Your task to perform on an android device: What is the recent news? Image 0: 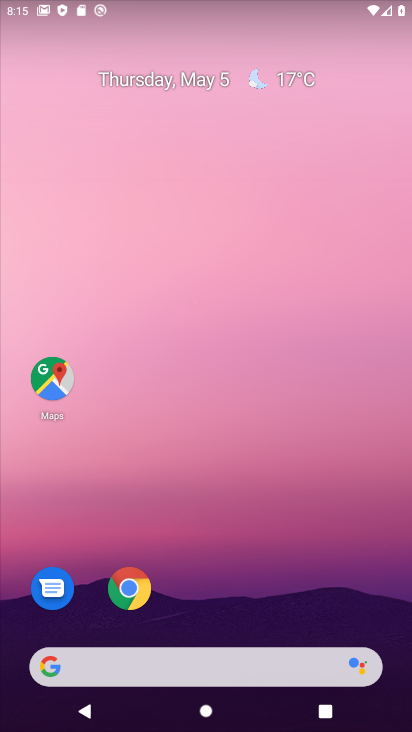
Step 0: drag from (271, 605) to (305, 291)
Your task to perform on an android device: What is the recent news? Image 1: 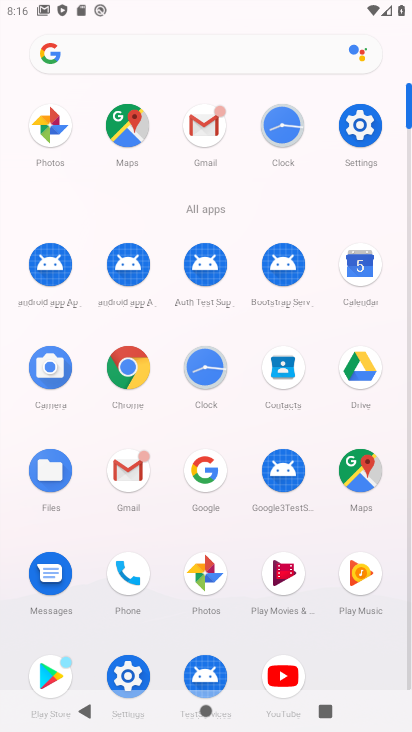
Step 1: click (135, 373)
Your task to perform on an android device: What is the recent news? Image 2: 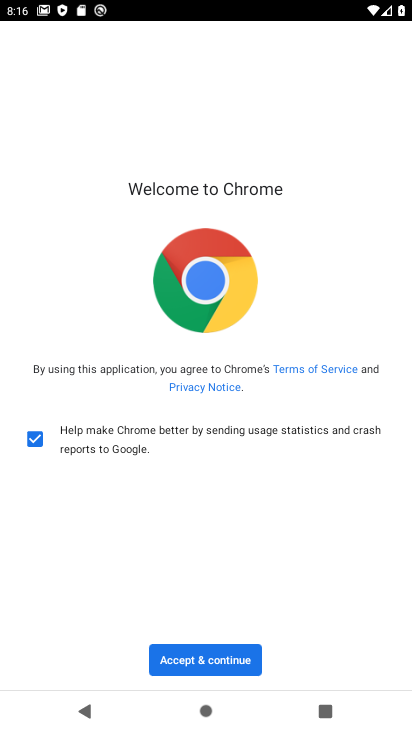
Step 2: click (190, 658)
Your task to perform on an android device: What is the recent news? Image 3: 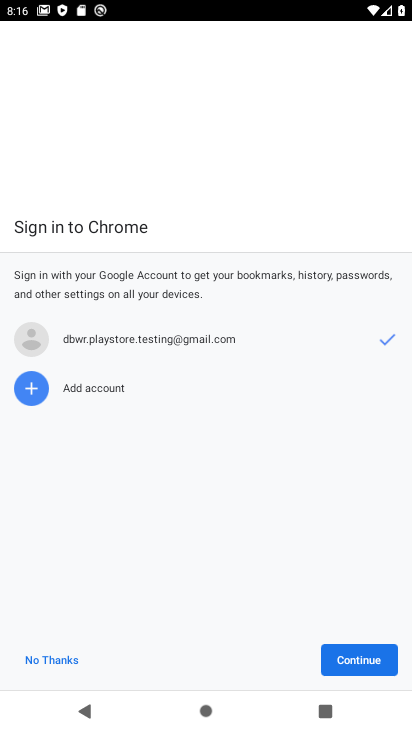
Step 3: click (190, 658)
Your task to perform on an android device: What is the recent news? Image 4: 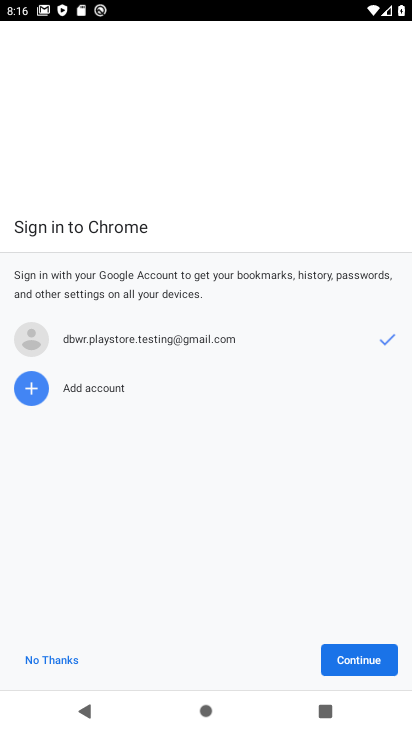
Step 4: click (336, 663)
Your task to perform on an android device: What is the recent news? Image 5: 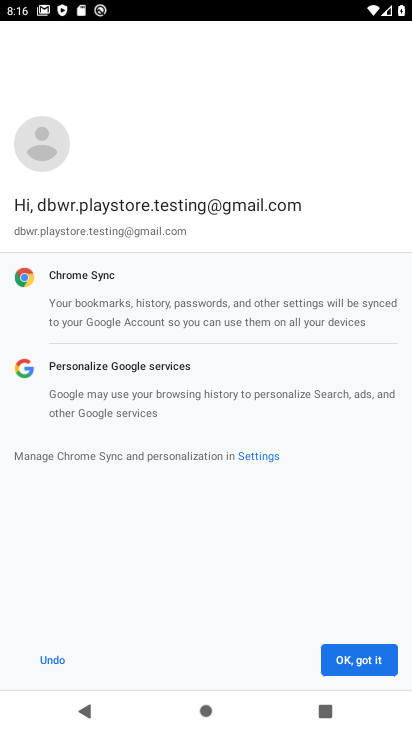
Step 5: click (349, 665)
Your task to perform on an android device: What is the recent news? Image 6: 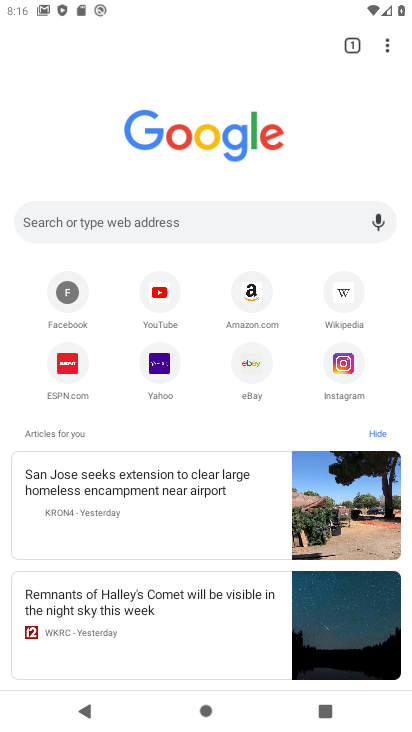
Step 6: click (239, 222)
Your task to perform on an android device: What is the recent news? Image 7: 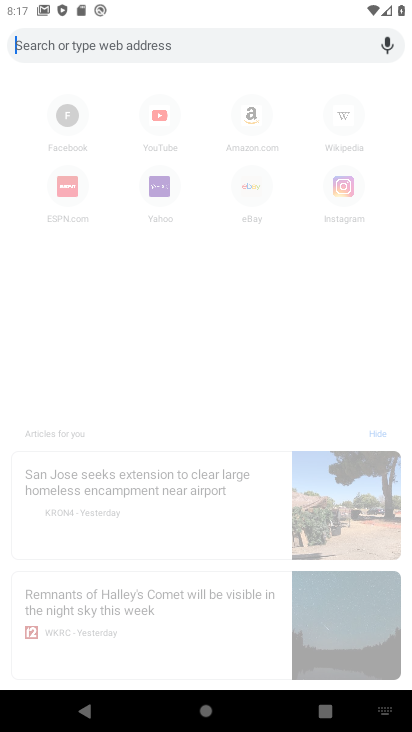
Step 7: type " recent news?"
Your task to perform on an android device: What is the recent news? Image 8: 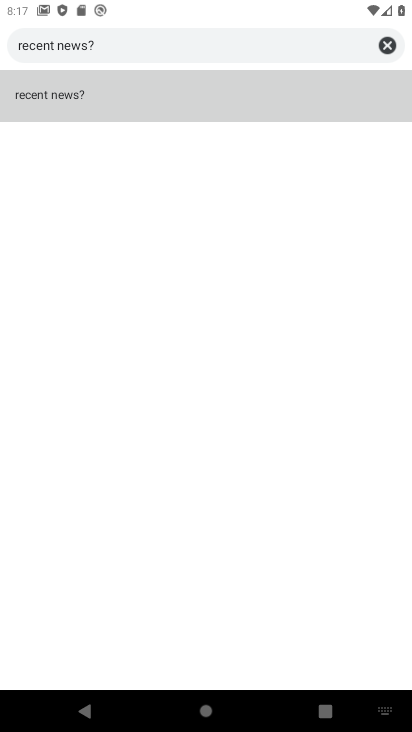
Step 8: click (167, 107)
Your task to perform on an android device: What is the recent news? Image 9: 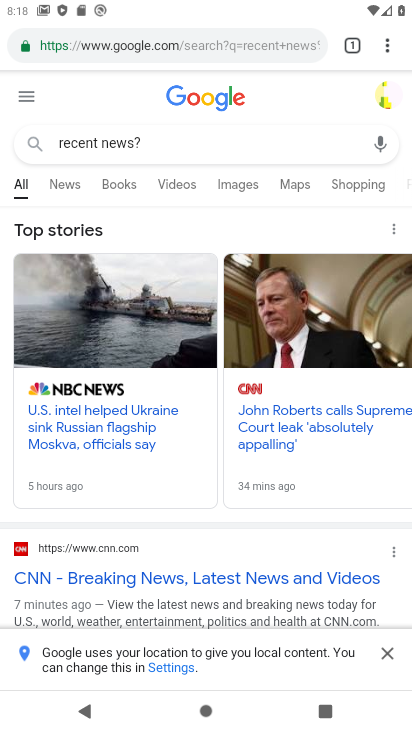
Step 9: task complete